Your task to perform on an android device: open chrome and create a bookmark for the current page Image 0: 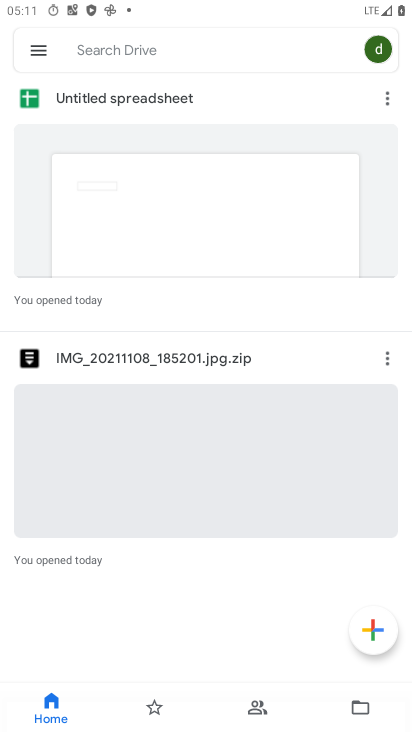
Step 0: press home button
Your task to perform on an android device: open chrome and create a bookmark for the current page Image 1: 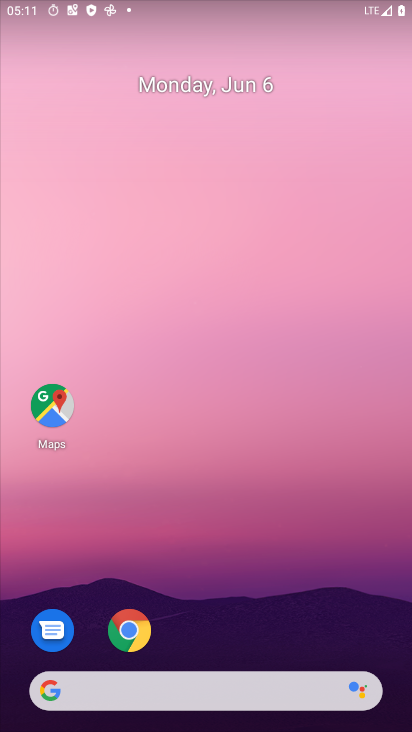
Step 1: drag from (206, 637) to (200, 67)
Your task to perform on an android device: open chrome and create a bookmark for the current page Image 2: 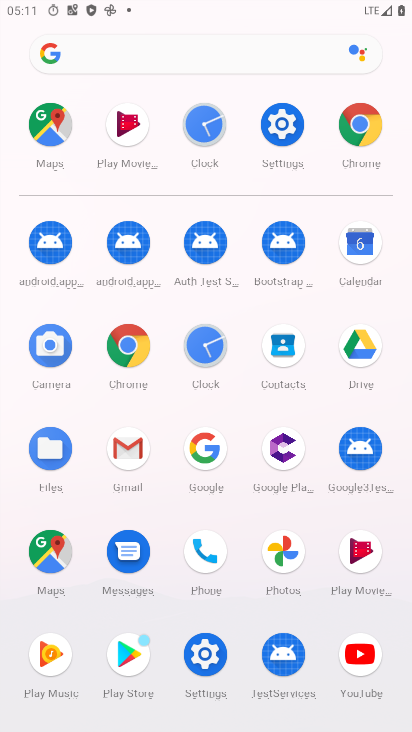
Step 2: click (137, 342)
Your task to perform on an android device: open chrome and create a bookmark for the current page Image 3: 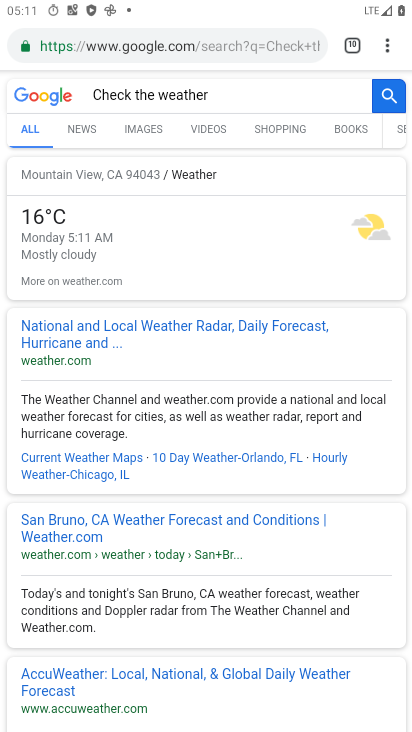
Step 3: task complete